Your task to perform on an android device: turn on location history Image 0: 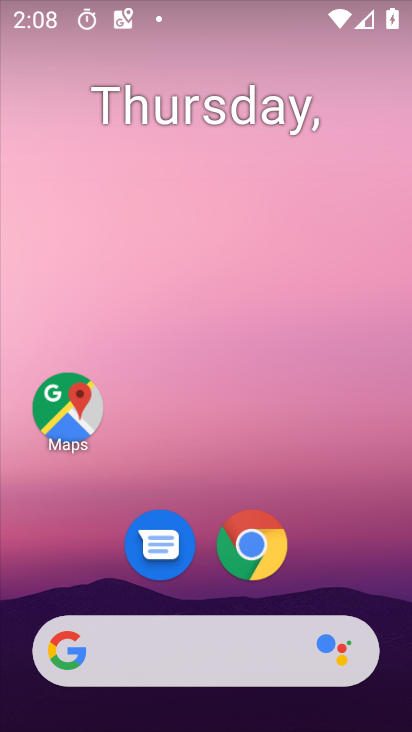
Step 0: drag from (204, 727) to (222, 84)
Your task to perform on an android device: turn on location history Image 1: 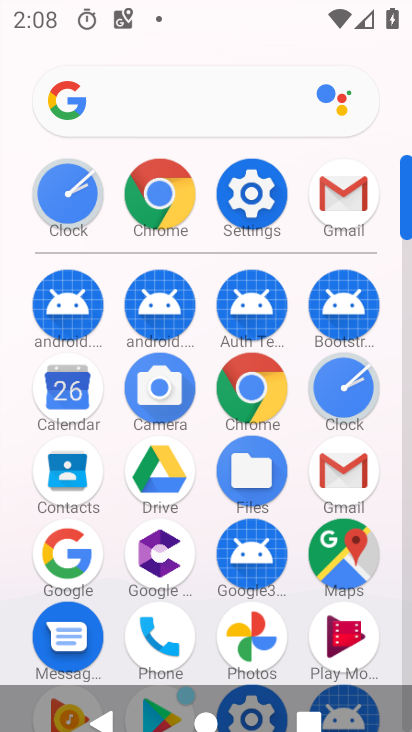
Step 1: click (260, 192)
Your task to perform on an android device: turn on location history Image 2: 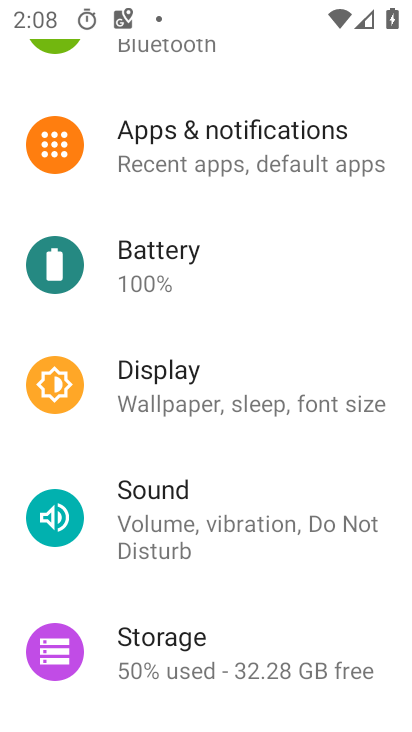
Step 2: drag from (185, 605) to (185, 148)
Your task to perform on an android device: turn on location history Image 3: 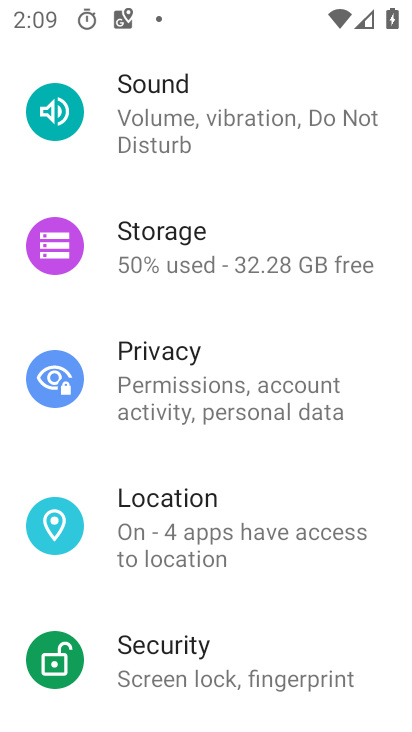
Step 3: click (175, 518)
Your task to perform on an android device: turn on location history Image 4: 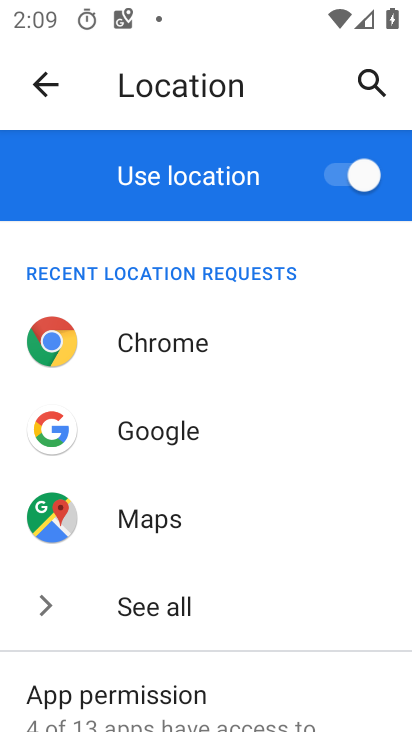
Step 4: drag from (139, 682) to (150, 329)
Your task to perform on an android device: turn on location history Image 5: 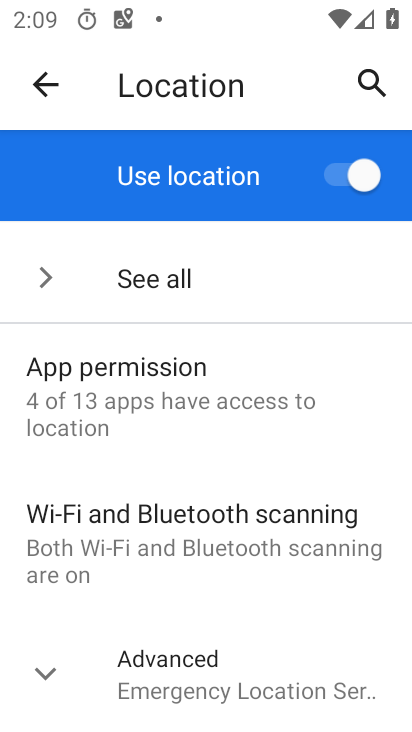
Step 5: click (167, 657)
Your task to perform on an android device: turn on location history Image 6: 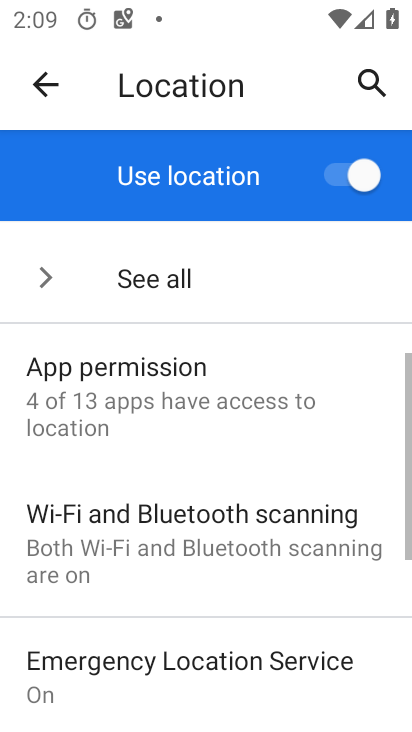
Step 6: drag from (158, 697) to (158, 244)
Your task to perform on an android device: turn on location history Image 7: 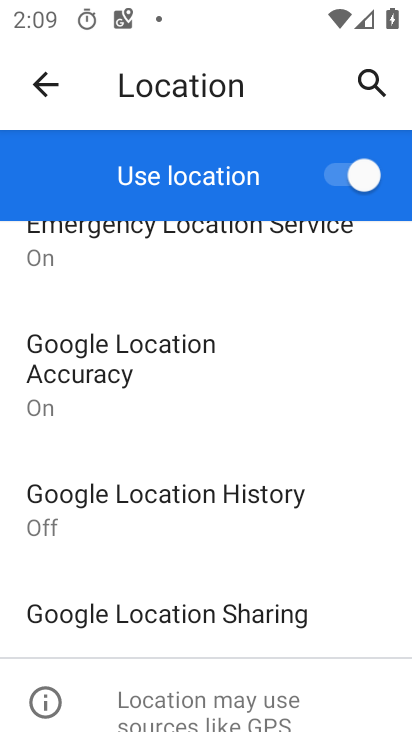
Step 7: click (156, 490)
Your task to perform on an android device: turn on location history Image 8: 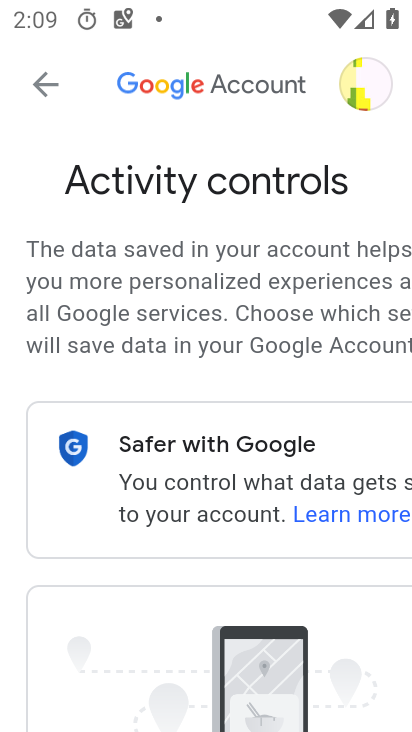
Step 8: drag from (179, 619) to (187, 270)
Your task to perform on an android device: turn on location history Image 9: 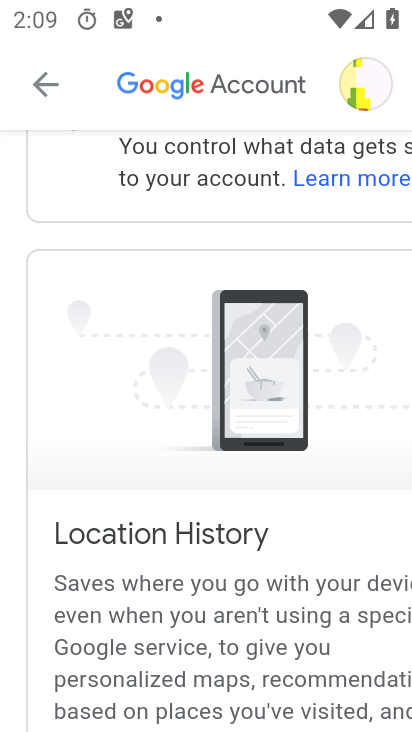
Step 9: click (161, 209)
Your task to perform on an android device: turn on location history Image 10: 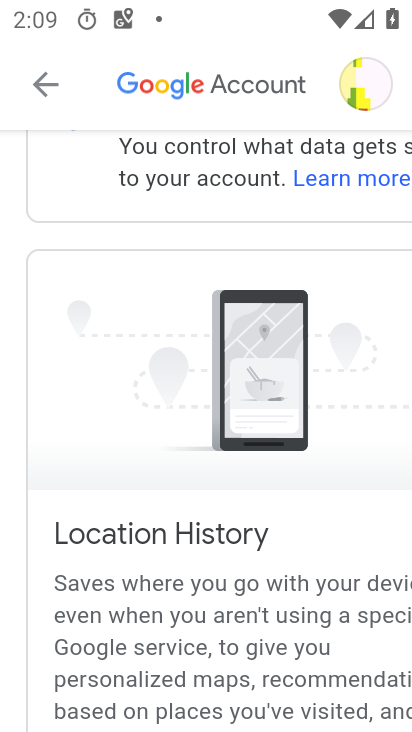
Step 10: drag from (209, 664) to (222, 244)
Your task to perform on an android device: turn on location history Image 11: 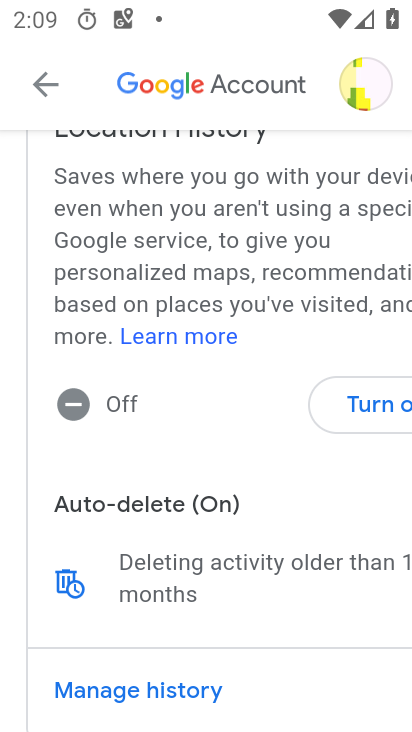
Step 11: click (363, 403)
Your task to perform on an android device: turn on location history Image 12: 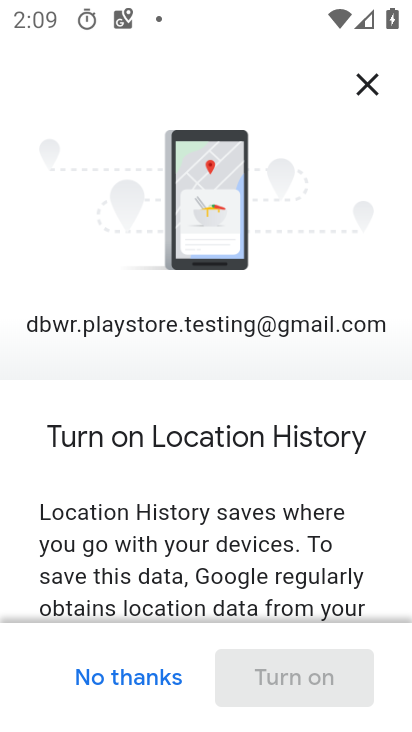
Step 12: drag from (269, 579) to (284, 189)
Your task to perform on an android device: turn on location history Image 13: 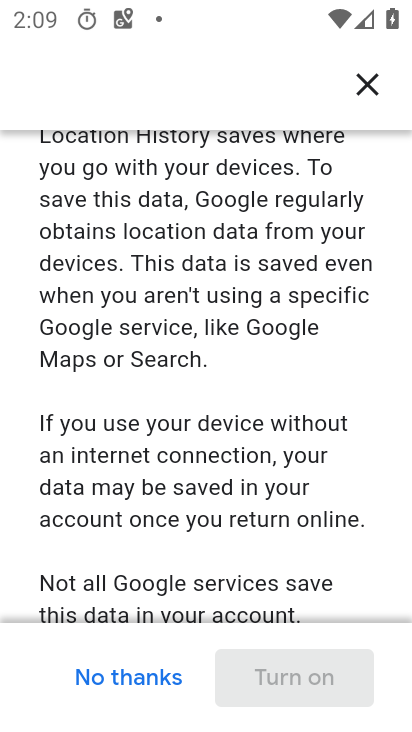
Step 13: drag from (237, 597) to (238, 191)
Your task to perform on an android device: turn on location history Image 14: 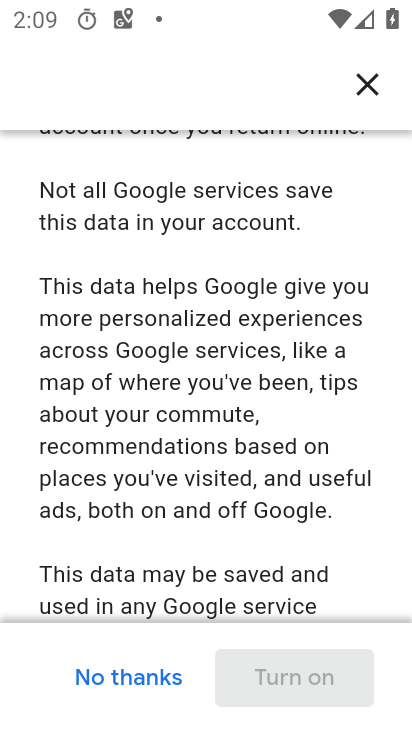
Step 14: drag from (235, 584) to (251, 174)
Your task to perform on an android device: turn on location history Image 15: 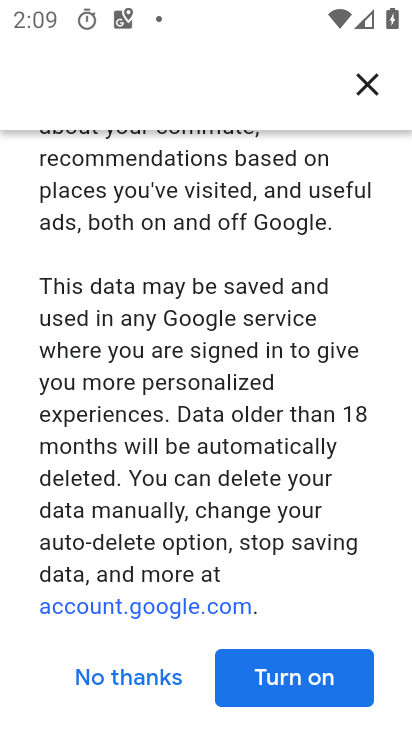
Step 15: click (293, 676)
Your task to perform on an android device: turn on location history Image 16: 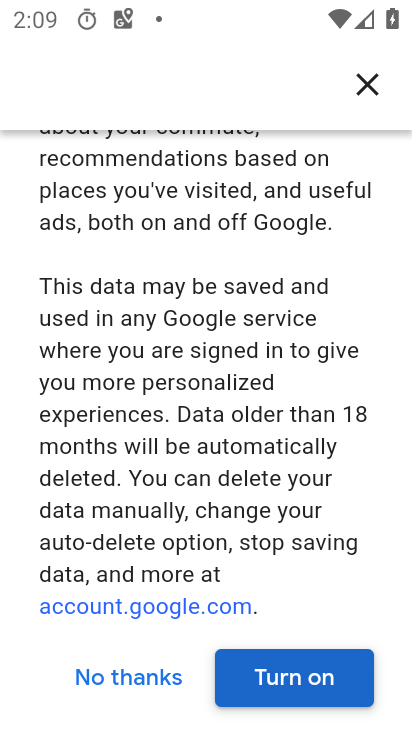
Step 16: click (294, 672)
Your task to perform on an android device: turn on location history Image 17: 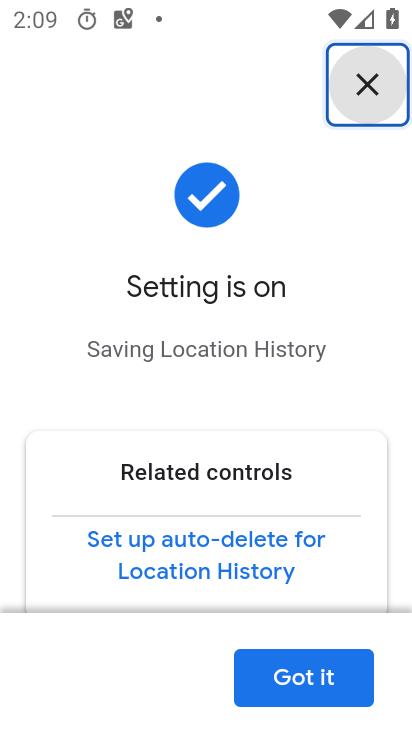
Step 17: task complete